Your task to perform on an android device: Do I have any events today? Image 0: 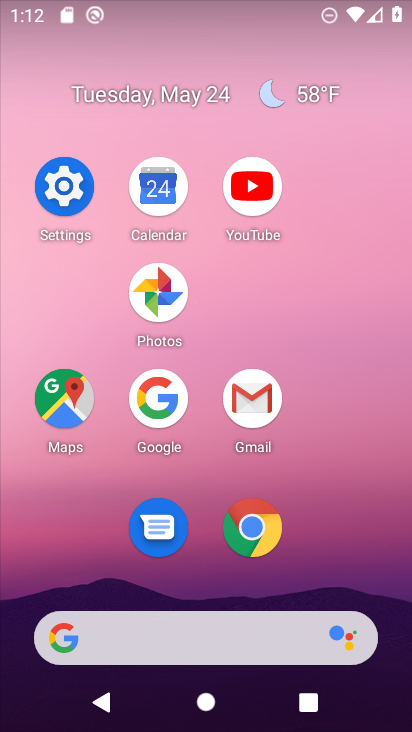
Step 0: click (179, 187)
Your task to perform on an android device: Do I have any events today? Image 1: 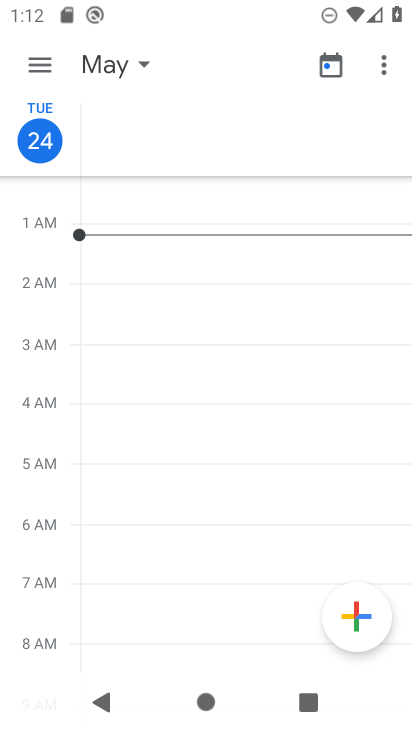
Step 1: click (30, 141)
Your task to perform on an android device: Do I have any events today? Image 2: 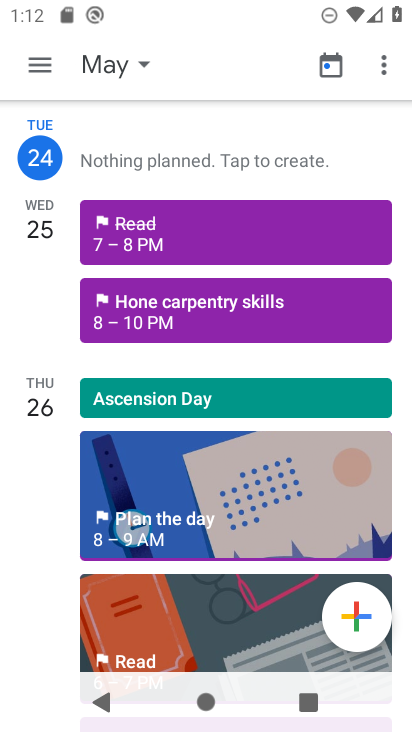
Step 2: task complete